Your task to perform on an android device: toggle priority inbox in the gmail app Image 0: 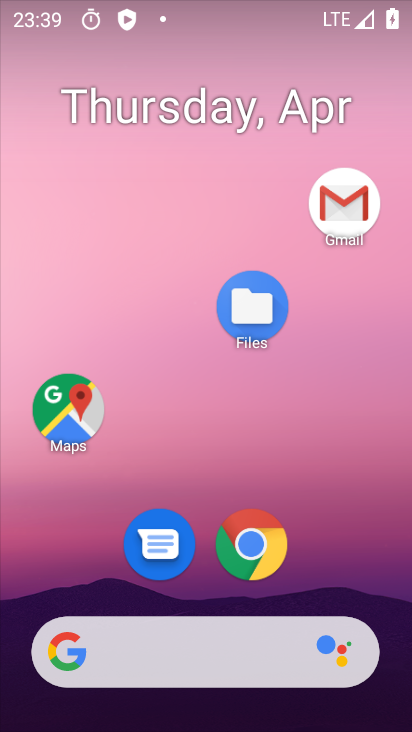
Step 0: click (329, 217)
Your task to perform on an android device: toggle priority inbox in the gmail app Image 1: 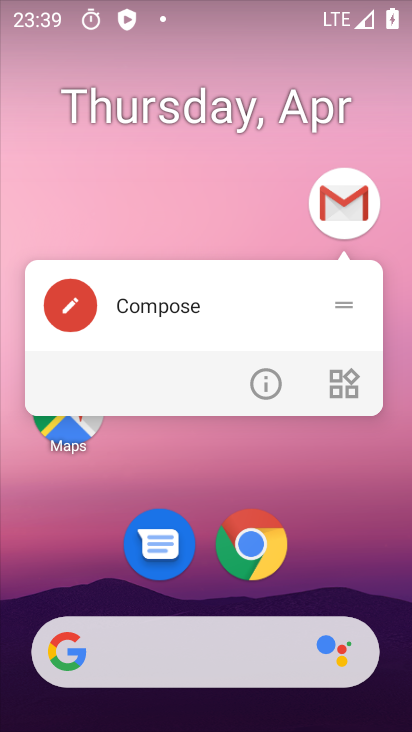
Step 1: click (270, 384)
Your task to perform on an android device: toggle priority inbox in the gmail app Image 2: 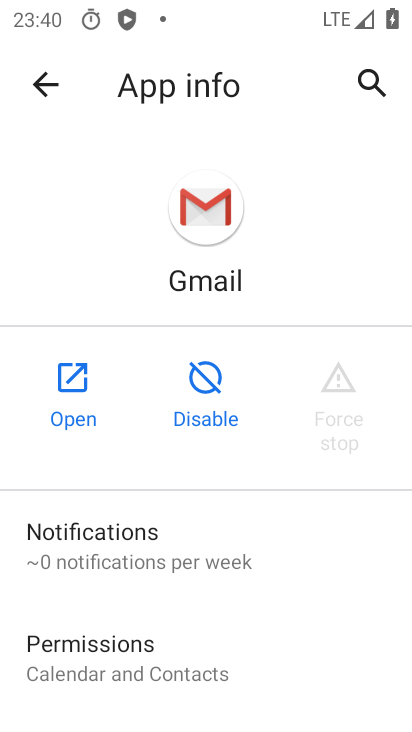
Step 2: click (76, 396)
Your task to perform on an android device: toggle priority inbox in the gmail app Image 3: 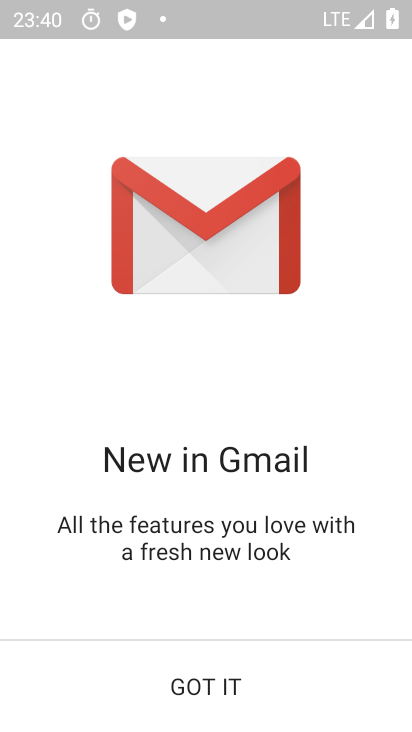
Step 3: click (226, 677)
Your task to perform on an android device: toggle priority inbox in the gmail app Image 4: 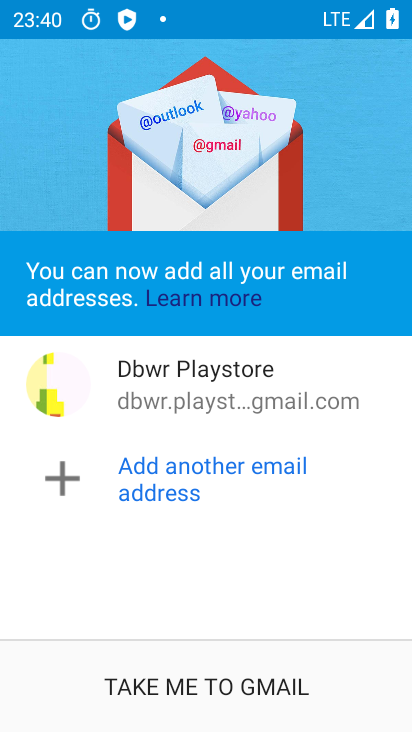
Step 4: click (227, 671)
Your task to perform on an android device: toggle priority inbox in the gmail app Image 5: 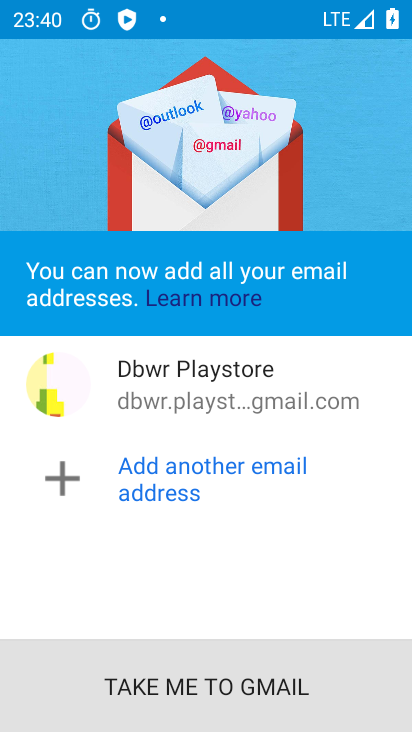
Step 5: click (235, 680)
Your task to perform on an android device: toggle priority inbox in the gmail app Image 6: 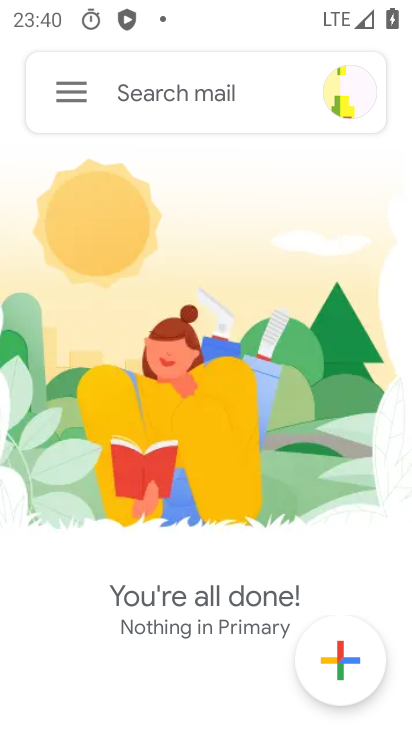
Step 6: click (71, 93)
Your task to perform on an android device: toggle priority inbox in the gmail app Image 7: 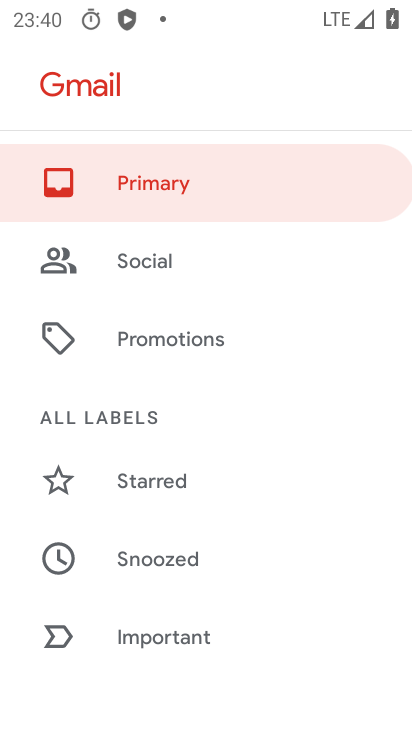
Step 7: click (63, 102)
Your task to perform on an android device: toggle priority inbox in the gmail app Image 8: 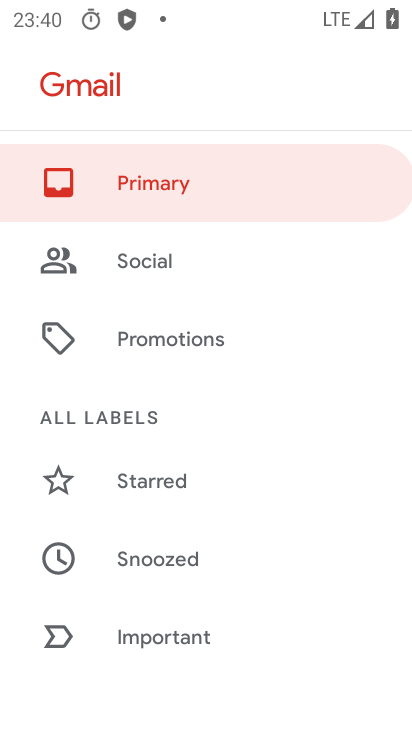
Step 8: drag from (231, 564) to (275, 158)
Your task to perform on an android device: toggle priority inbox in the gmail app Image 9: 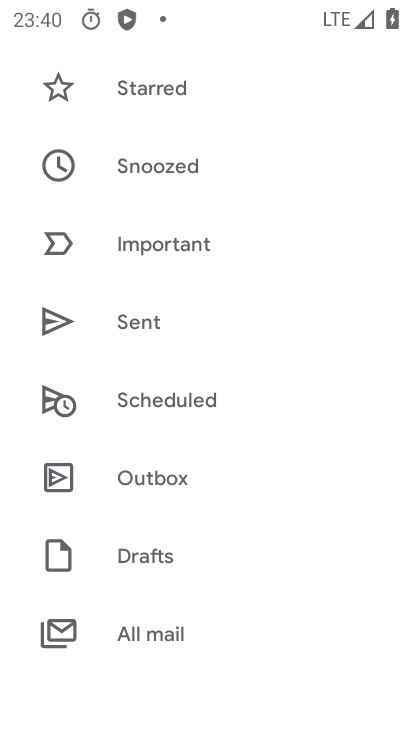
Step 9: drag from (228, 585) to (245, 215)
Your task to perform on an android device: toggle priority inbox in the gmail app Image 10: 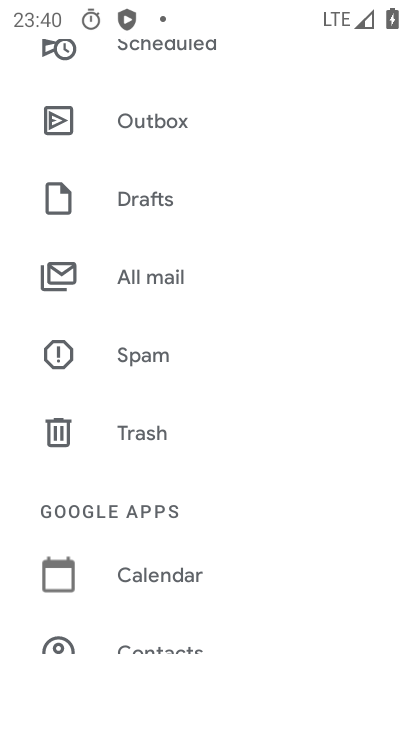
Step 10: drag from (188, 483) to (188, 205)
Your task to perform on an android device: toggle priority inbox in the gmail app Image 11: 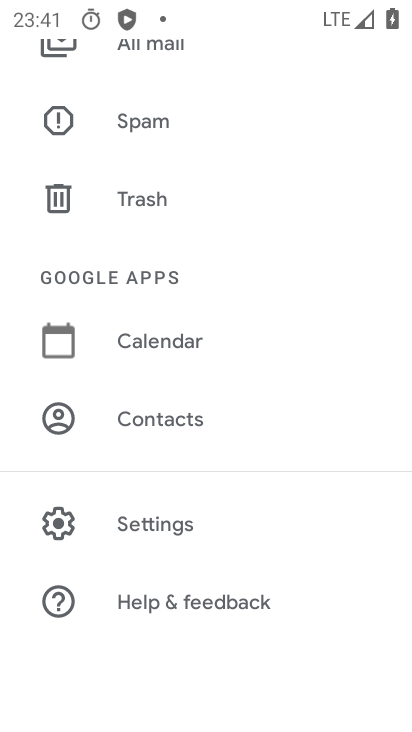
Step 11: drag from (181, 619) to (223, 177)
Your task to perform on an android device: toggle priority inbox in the gmail app Image 12: 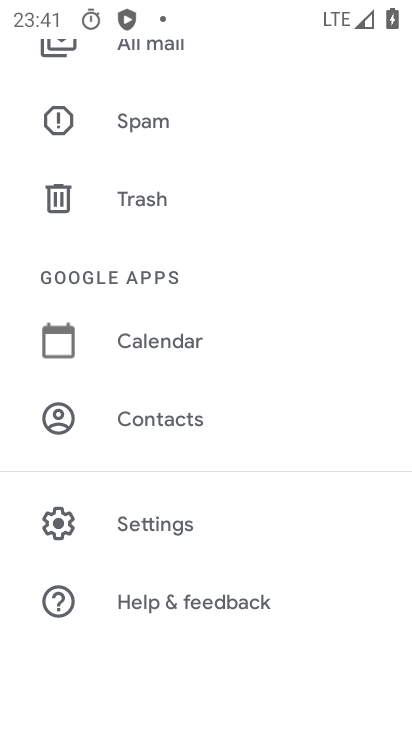
Step 12: drag from (203, 564) to (232, 133)
Your task to perform on an android device: toggle priority inbox in the gmail app Image 13: 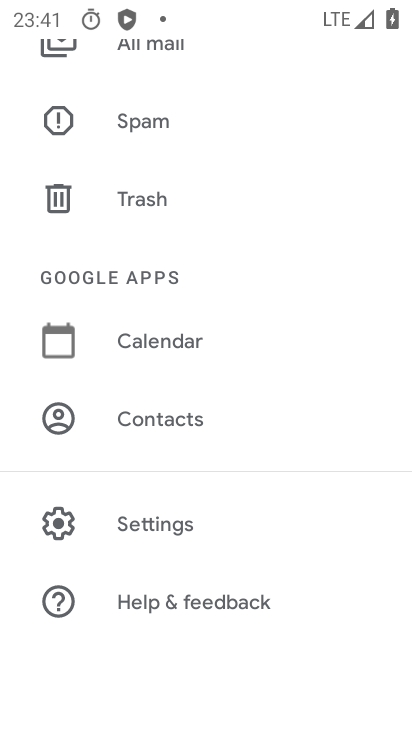
Step 13: drag from (207, 534) to (59, 122)
Your task to perform on an android device: toggle priority inbox in the gmail app Image 14: 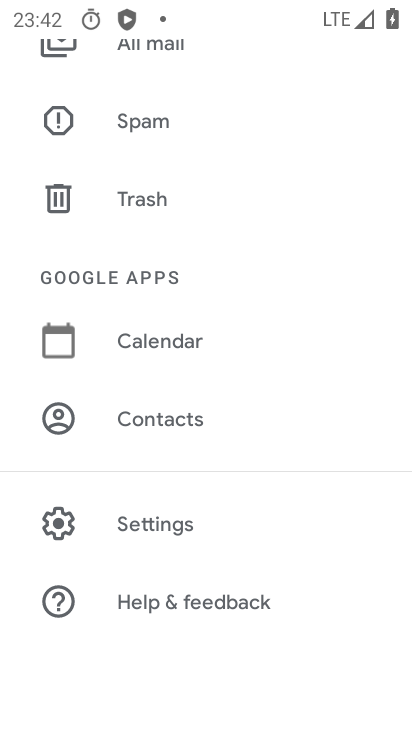
Step 14: click (182, 533)
Your task to perform on an android device: toggle priority inbox in the gmail app Image 15: 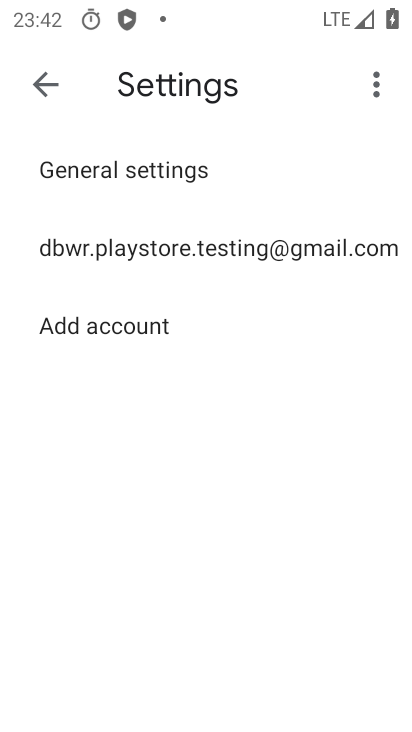
Step 15: click (216, 248)
Your task to perform on an android device: toggle priority inbox in the gmail app Image 16: 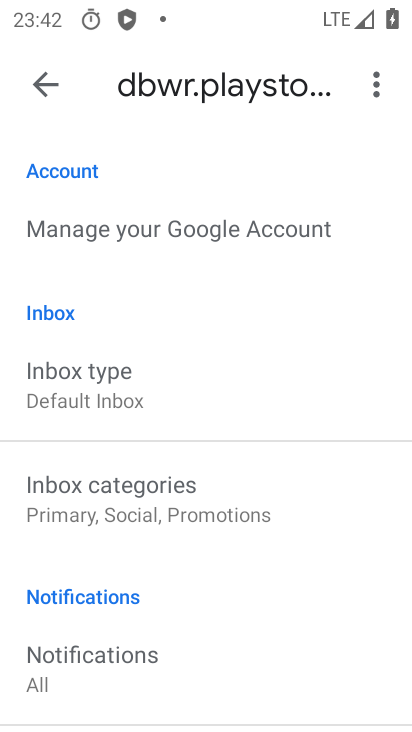
Step 16: click (179, 411)
Your task to perform on an android device: toggle priority inbox in the gmail app Image 17: 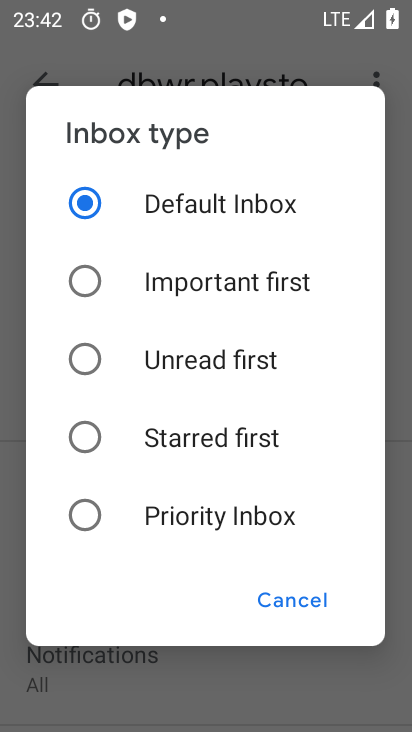
Step 17: click (208, 523)
Your task to perform on an android device: toggle priority inbox in the gmail app Image 18: 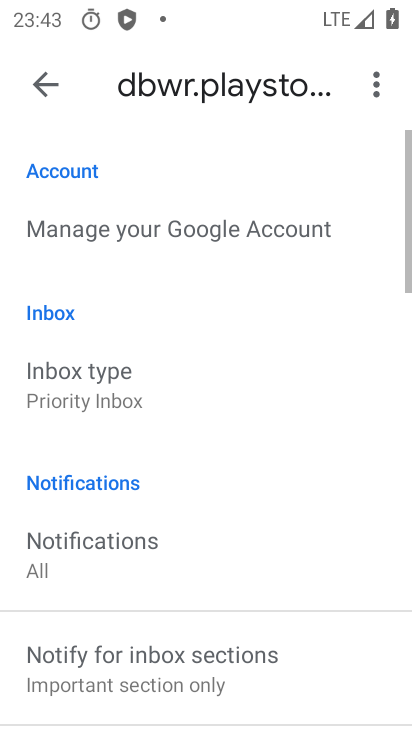
Step 18: task complete